Your task to perform on an android device: Go to display settings Image 0: 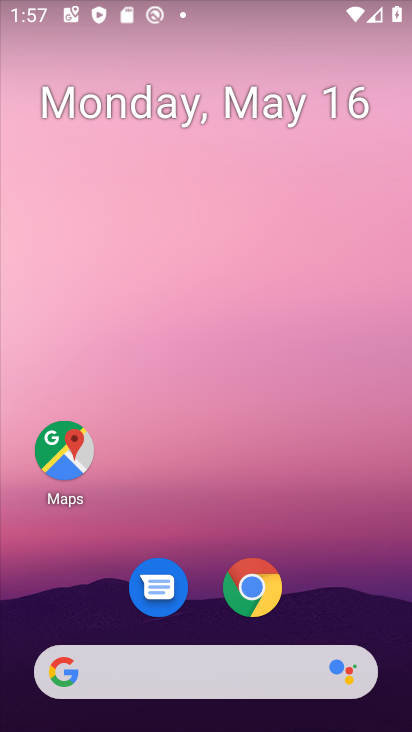
Step 0: drag from (370, 634) to (313, 154)
Your task to perform on an android device: Go to display settings Image 1: 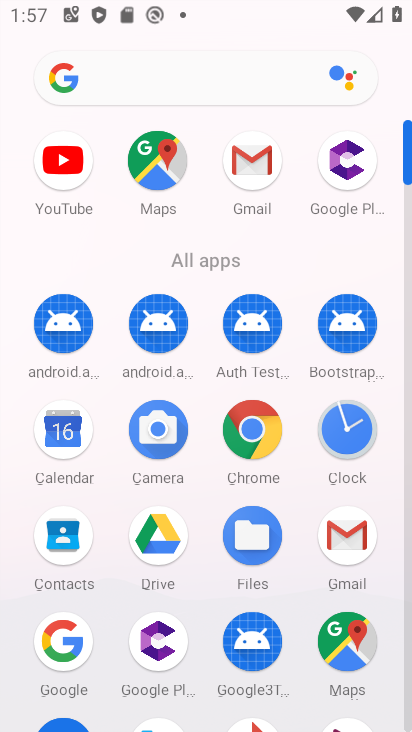
Step 1: drag from (305, 428) to (303, 89)
Your task to perform on an android device: Go to display settings Image 2: 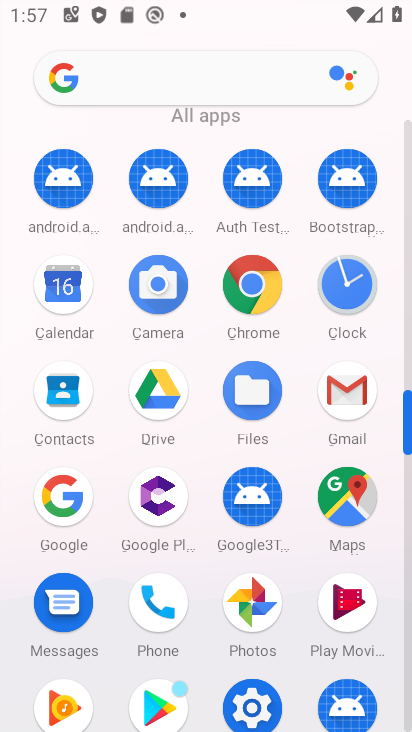
Step 2: click (255, 705)
Your task to perform on an android device: Go to display settings Image 3: 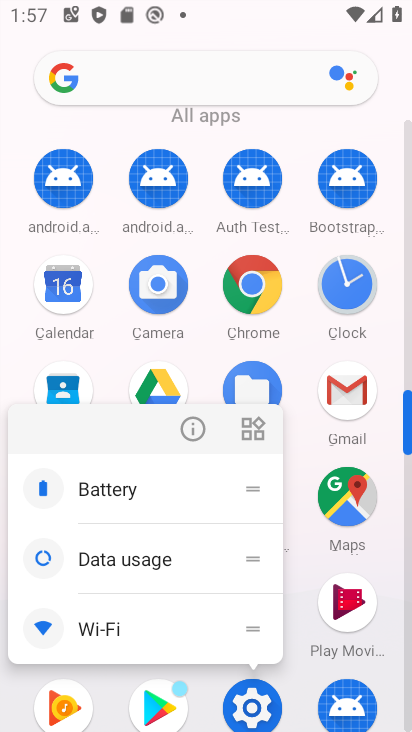
Step 3: click (255, 705)
Your task to perform on an android device: Go to display settings Image 4: 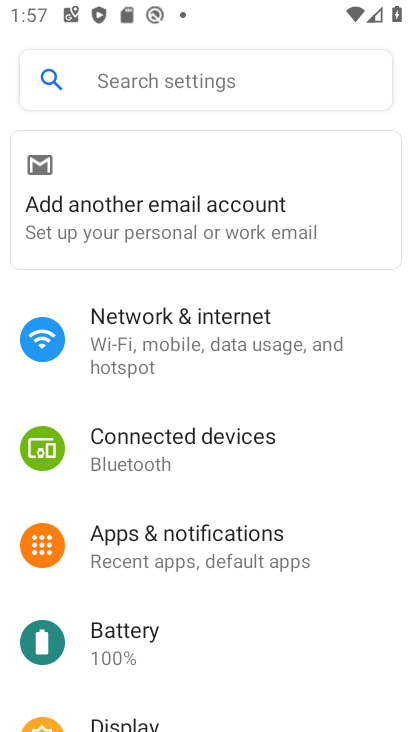
Step 4: drag from (148, 579) to (156, 180)
Your task to perform on an android device: Go to display settings Image 5: 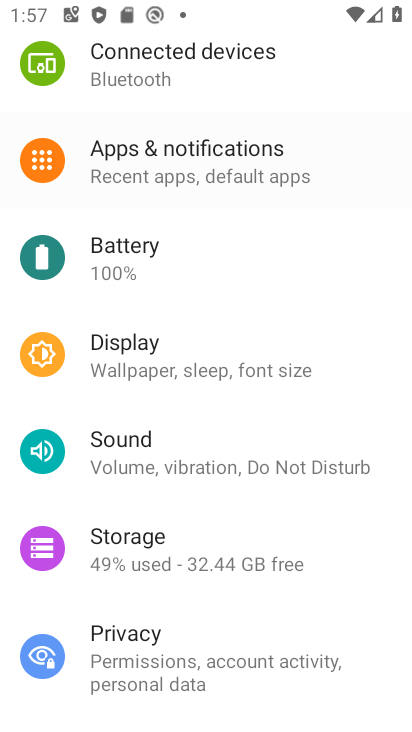
Step 5: drag from (164, 499) to (146, 275)
Your task to perform on an android device: Go to display settings Image 6: 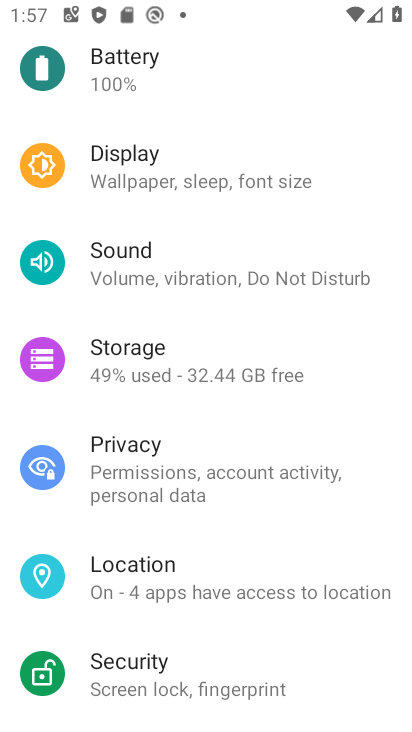
Step 6: drag from (171, 476) to (244, 166)
Your task to perform on an android device: Go to display settings Image 7: 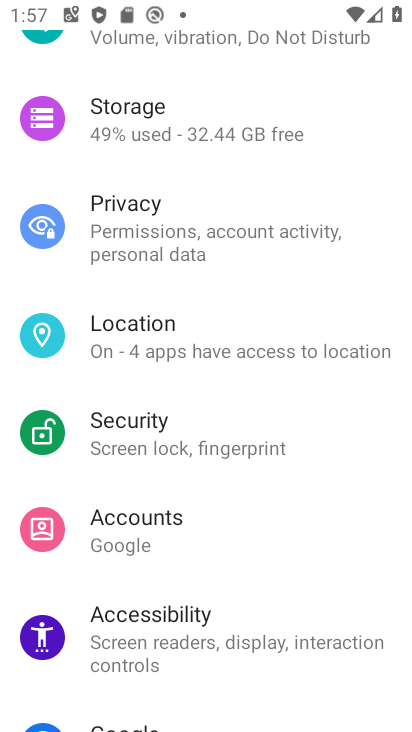
Step 7: drag from (136, 156) to (182, 676)
Your task to perform on an android device: Go to display settings Image 8: 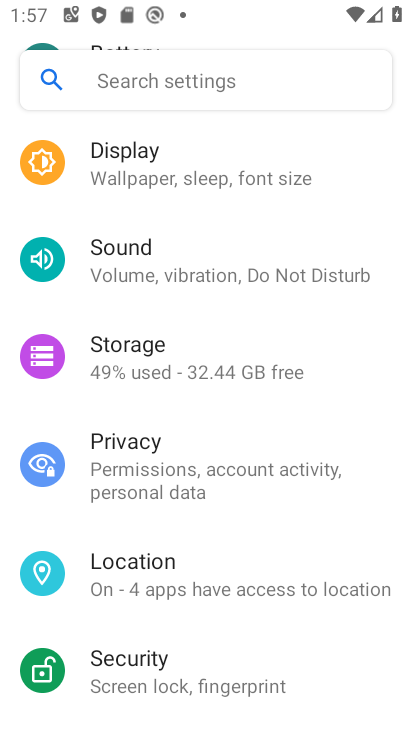
Step 8: click (115, 172)
Your task to perform on an android device: Go to display settings Image 9: 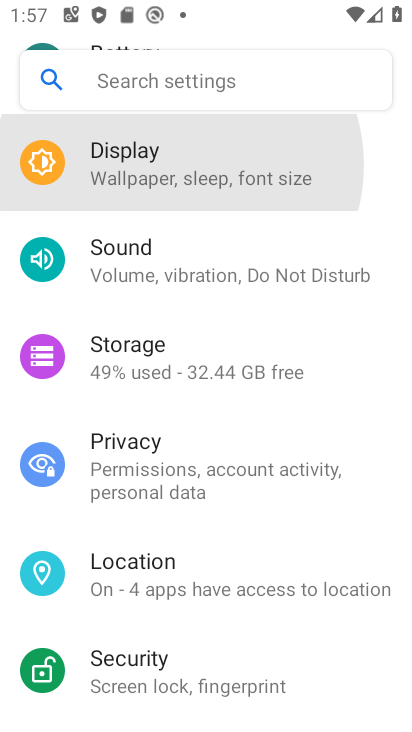
Step 9: click (115, 172)
Your task to perform on an android device: Go to display settings Image 10: 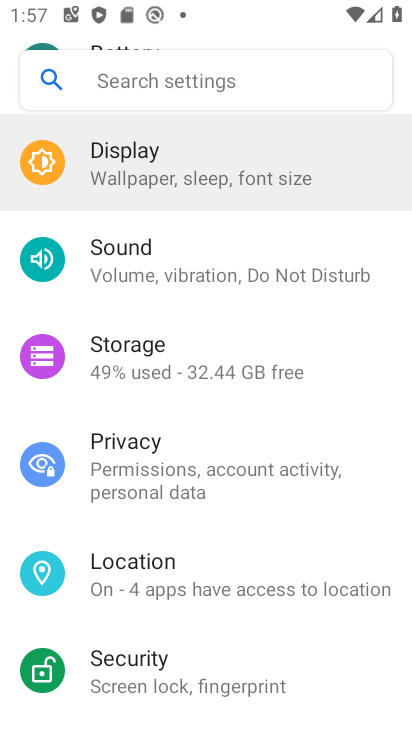
Step 10: click (119, 171)
Your task to perform on an android device: Go to display settings Image 11: 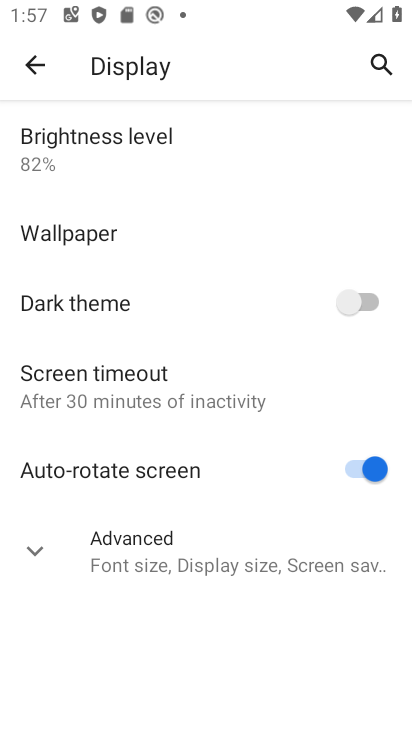
Step 11: task complete